Your task to perform on an android device: What's the news this morning? Image 0: 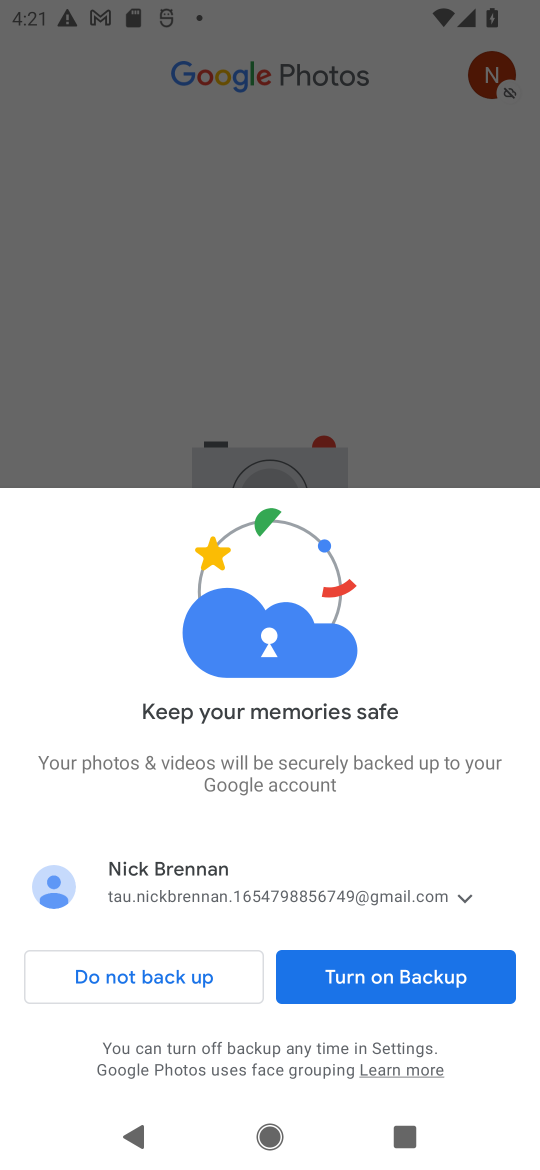
Step 0: press home button
Your task to perform on an android device: What's the news this morning? Image 1: 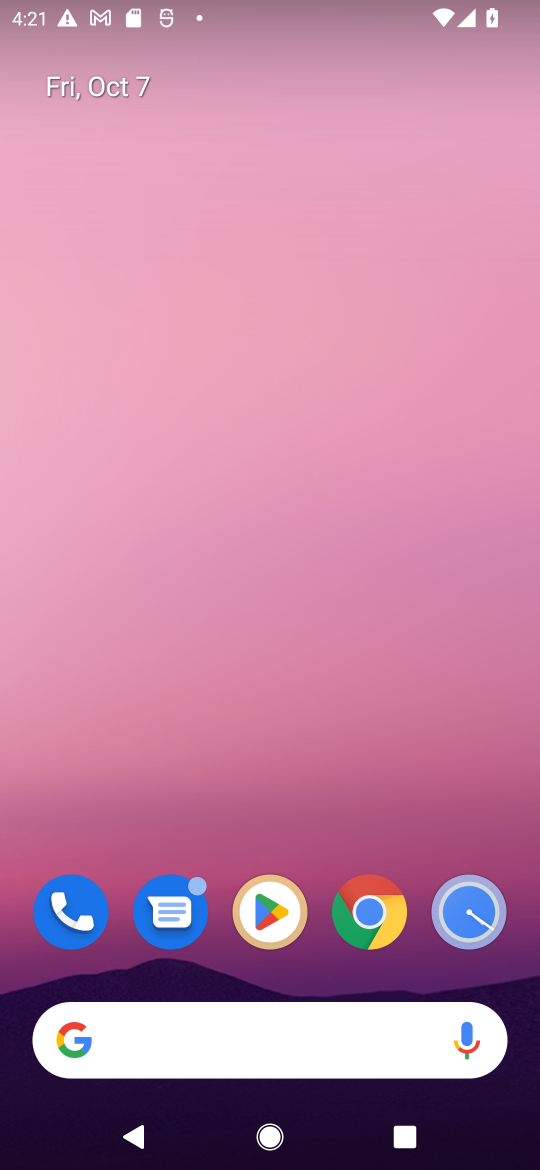
Step 1: drag from (168, 923) to (213, 238)
Your task to perform on an android device: What's the news this morning? Image 2: 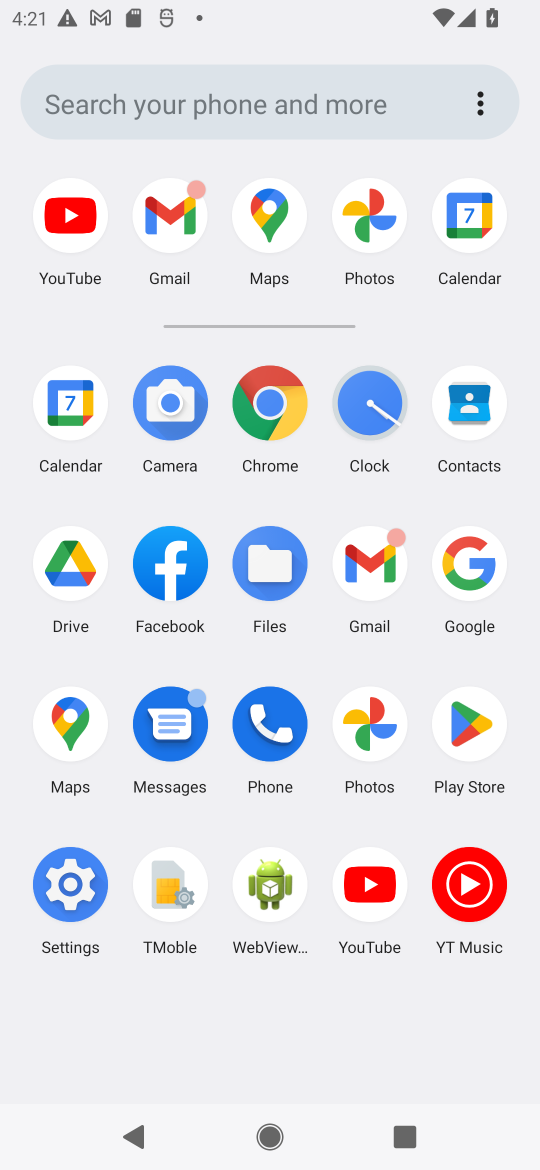
Step 2: click (475, 553)
Your task to perform on an android device: What's the news this morning? Image 3: 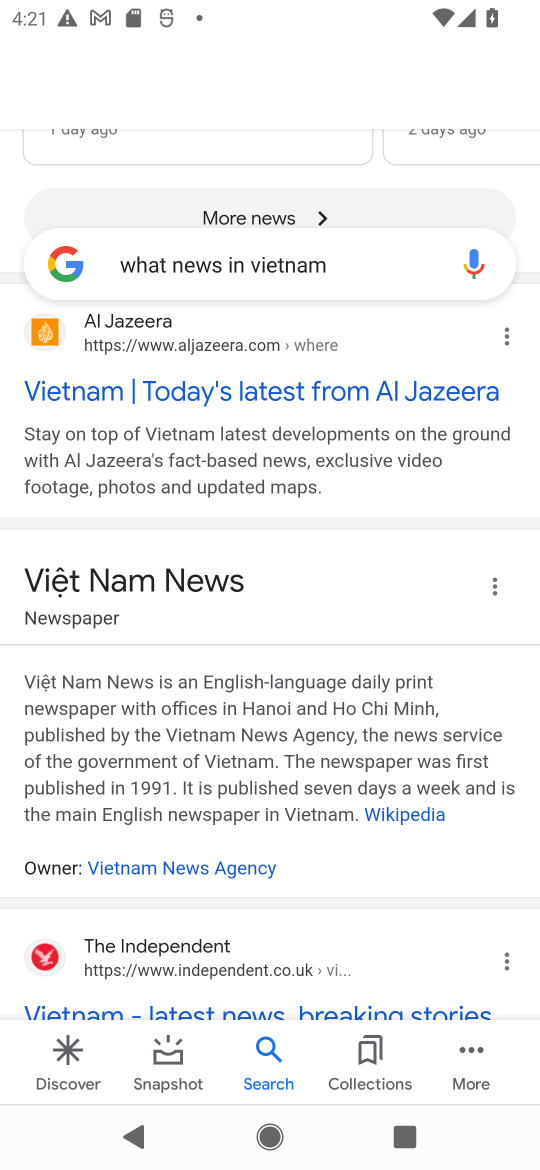
Step 3: click (334, 265)
Your task to perform on an android device: What's the news this morning? Image 4: 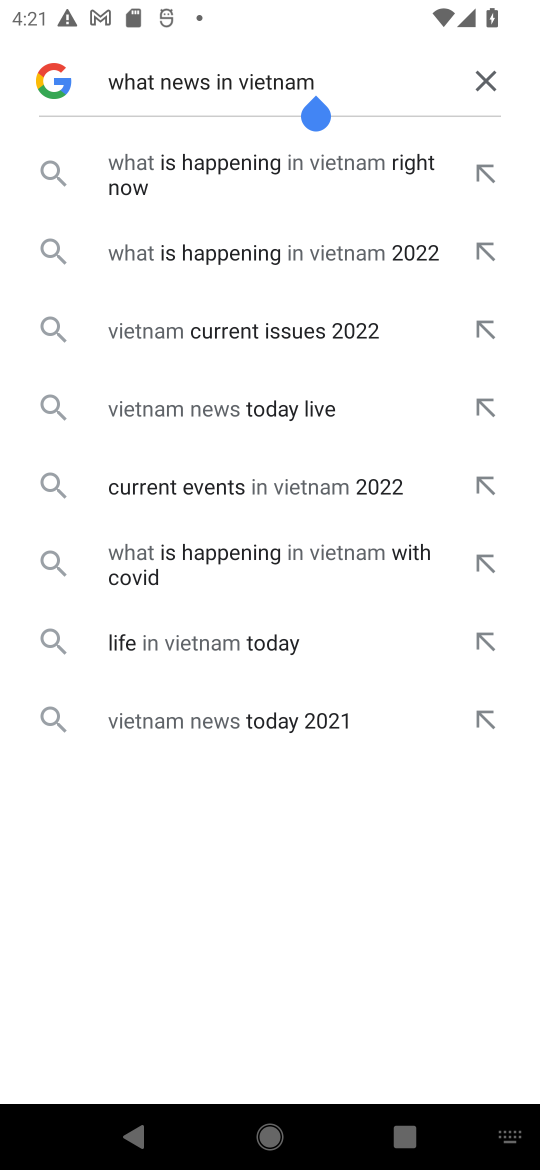
Step 4: click (481, 75)
Your task to perform on an android device: What's the news this morning? Image 5: 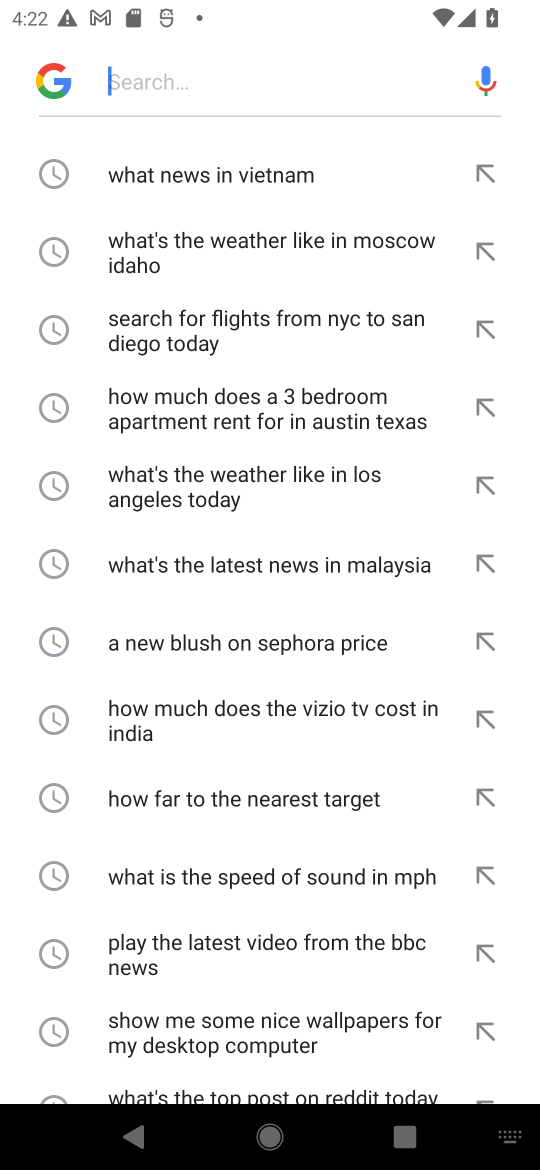
Step 5: click (227, 99)
Your task to perform on an android device: What's the news this morning? Image 6: 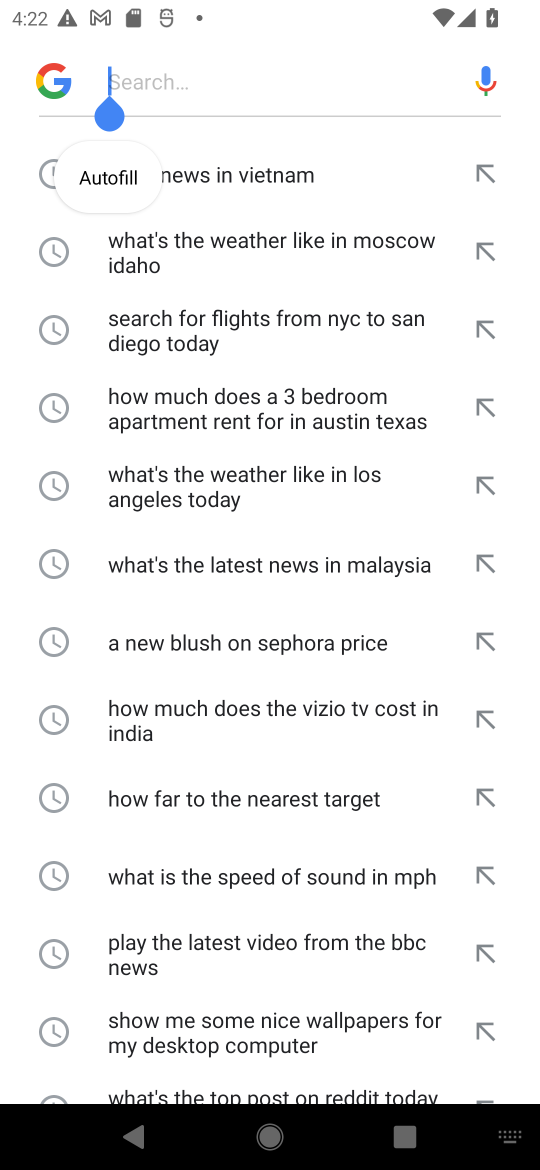
Step 6: type "What's the news this morning? "
Your task to perform on an android device: What's the news this morning? Image 7: 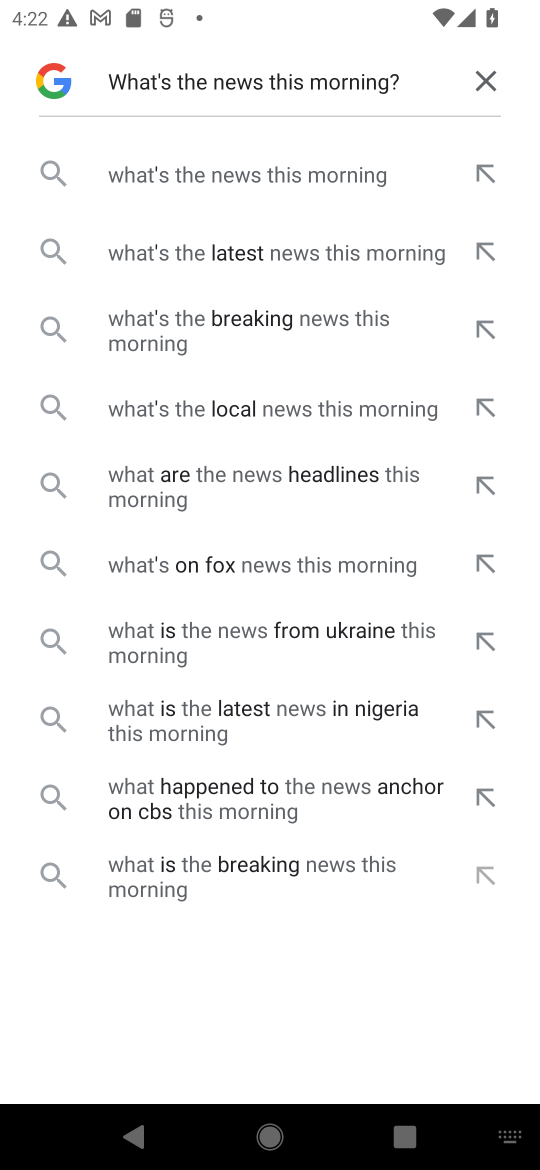
Step 7: click (259, 178)
Your task to perform on an android device: What's the news this morning? Image 8: 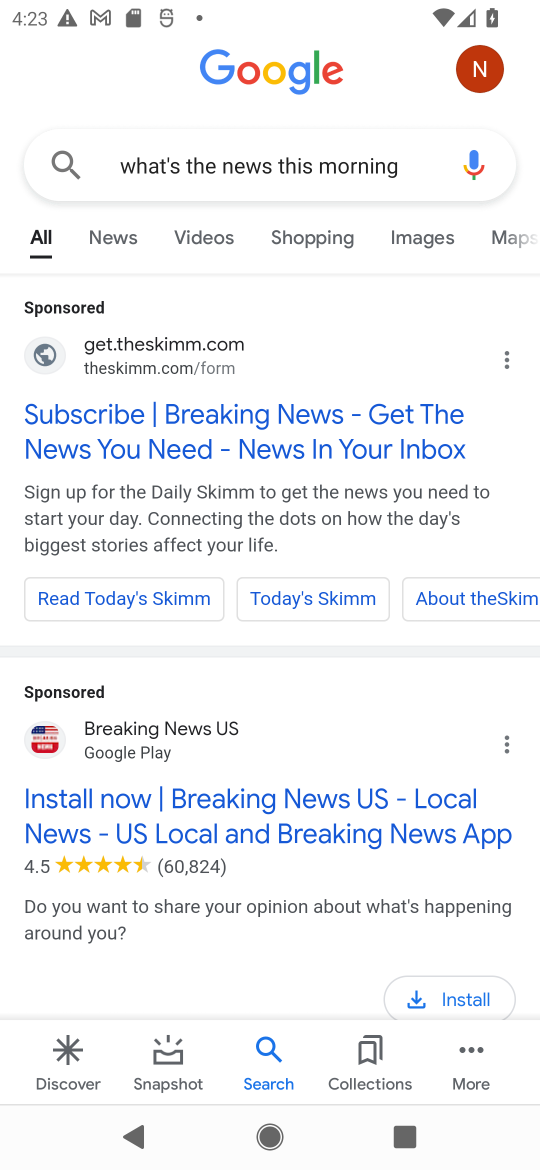
Step 8: drag from (292, 893) to (318, 428)
Your task to perform on an android device: What's the news this morning? Image 9: 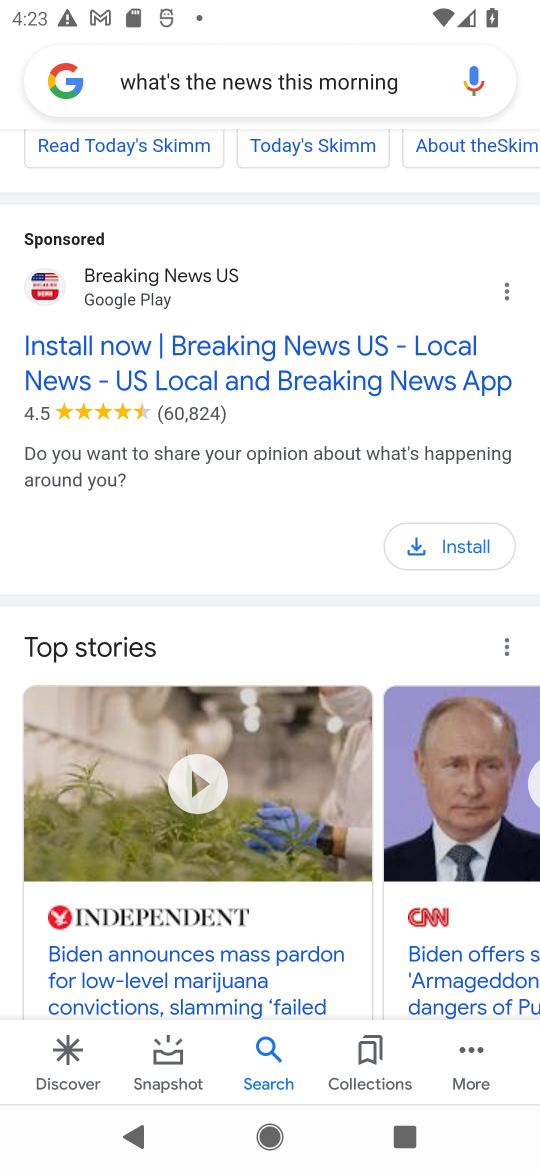
Step 9: click (263, 251)
Your task to perform on an android device: What's the news this morning? Image 10: 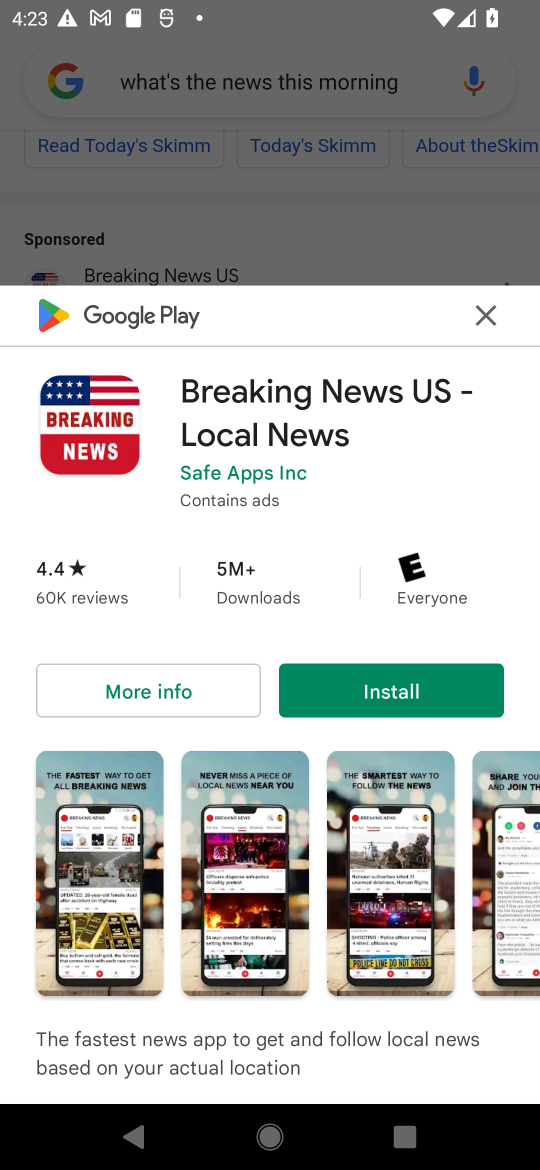
Step 10: click (476, 318)
Your task to perform on an android device: What's the news this morning? Image 11: 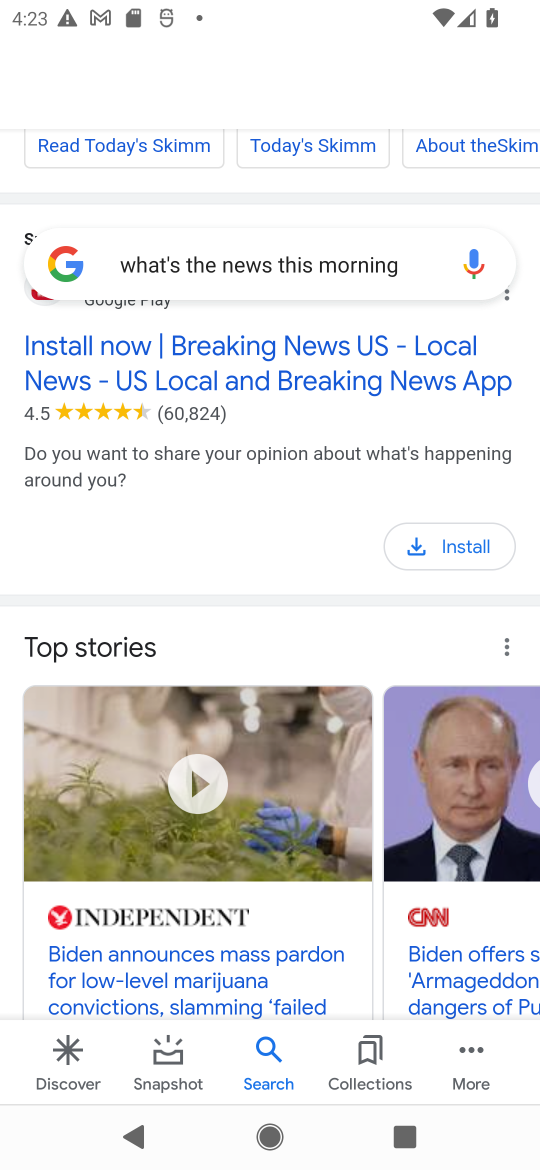
Step 11: task complete